Your task to perform on an android device: check out phone information Image 0: 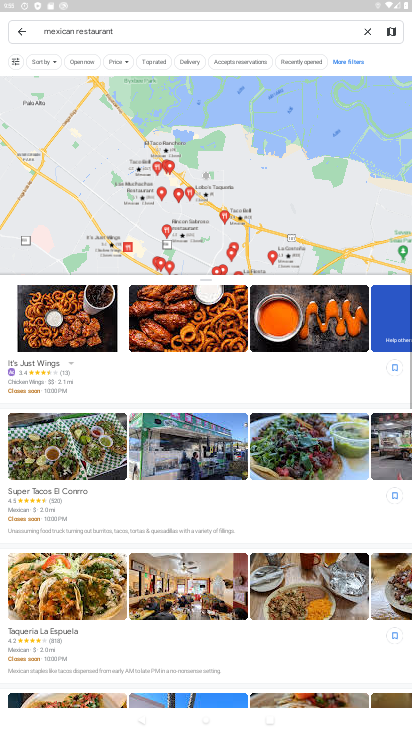
Step 0: drag from (25, 591) to (254, 141)
Your task to perform on an android device: check out phone information Image 1: 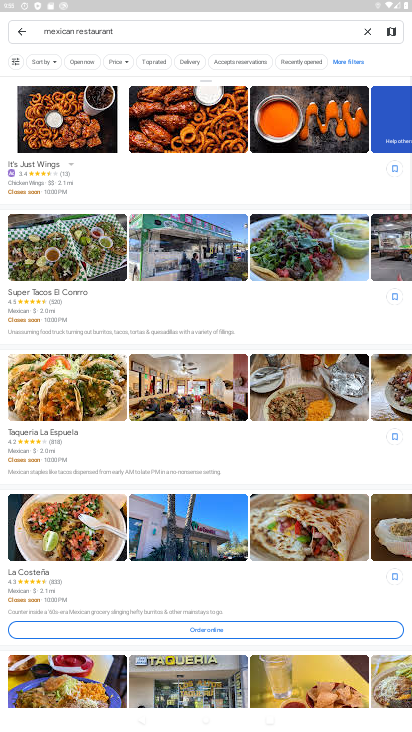
Step 1: press back button
Your task to perform on an android device: check out phone information Image 2: 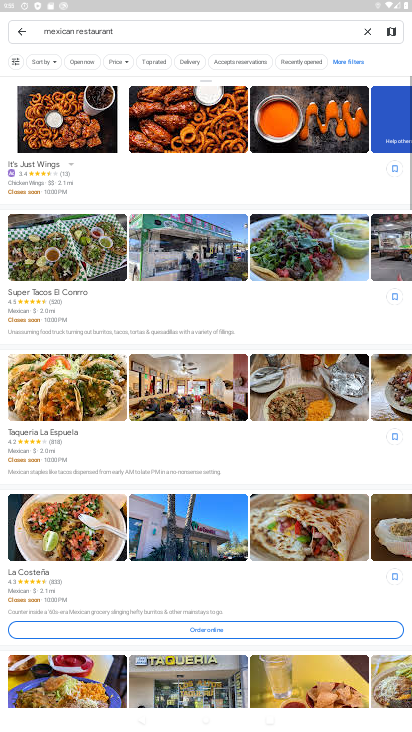
Step 2: press home button
Your task to perform on an android device: check out phone information Image 3: 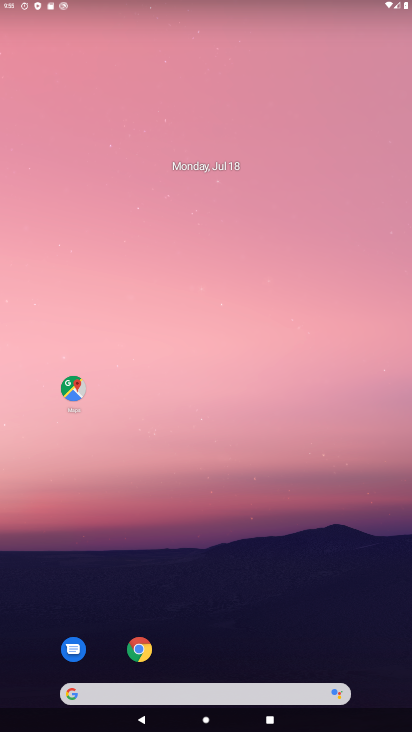
Step 3: drag from (59, 529) to (268, 94)
Your task to perform on an android device: check out phone information Image 4: 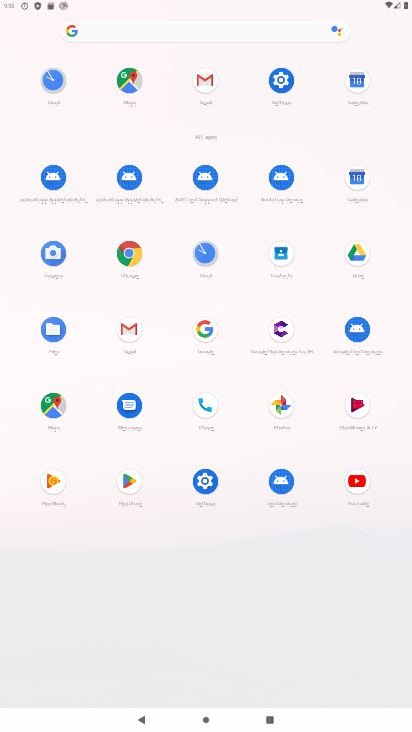
Step 4: click (212, 401)
Your task to perform on an android device: check out phone information Image 5: 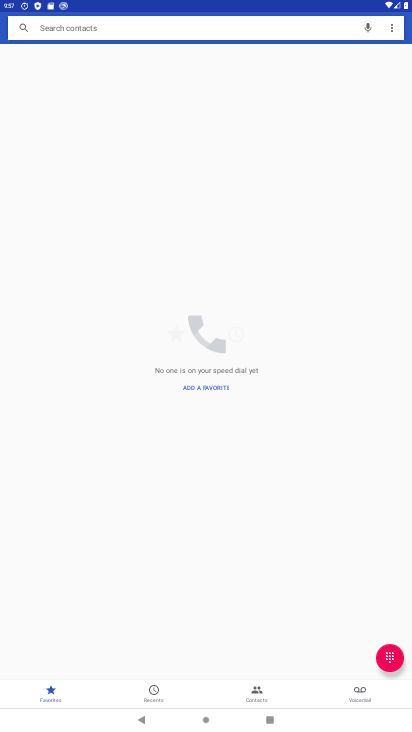
Step 5: task complete